Your task to perform on an android device: Open Amazon Image 0: 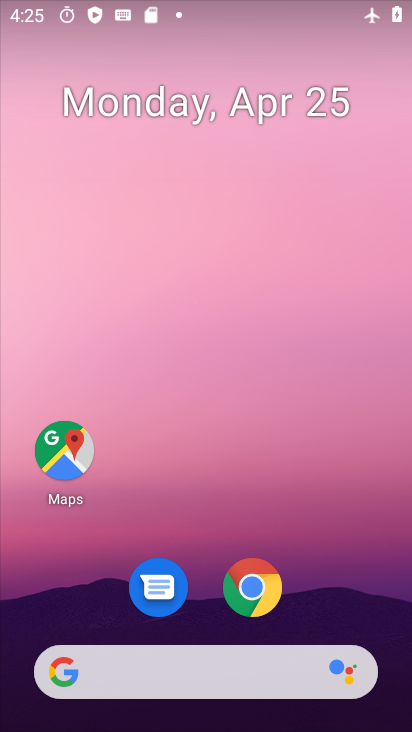
Step 0: drag from (335, 586) to (320, 137)
Your task to perform on an android device: Open Amazon Image 1: 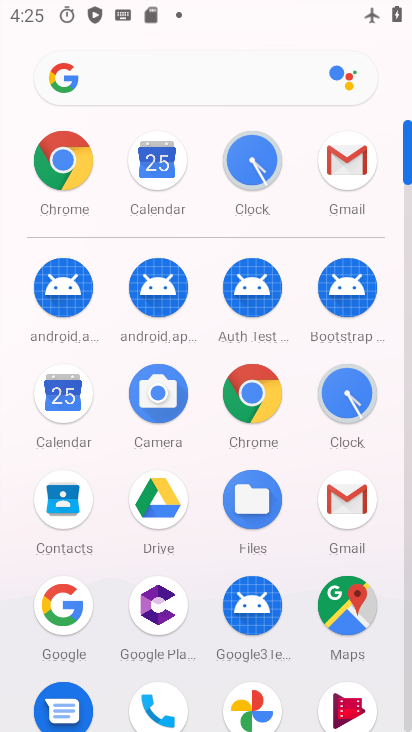
Step 1: click (255, 399)
Your task to perform on an android device: Open Amazon Image 2: 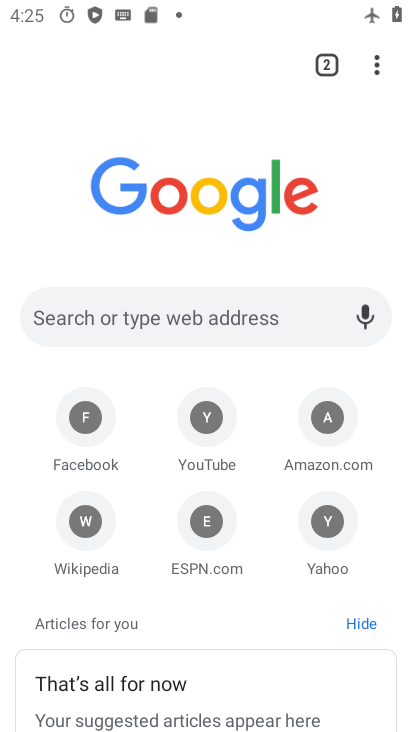
Step 2: click (319, 420)
Your task to perform on an android device: Open Amazon Image 3: 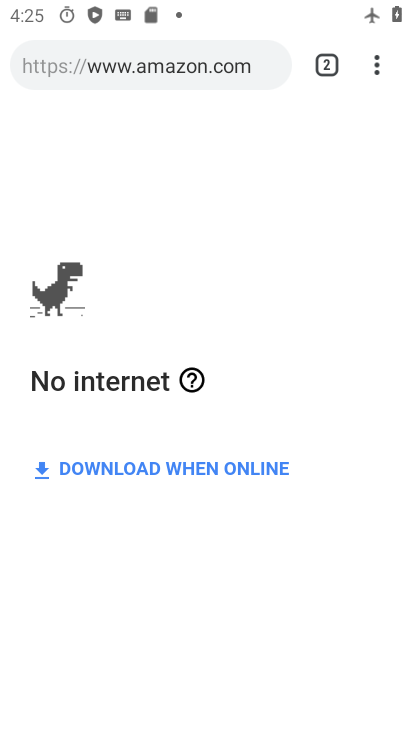
Step 3: task complete